Your task to perform on an android device: Go to settings Image 0: 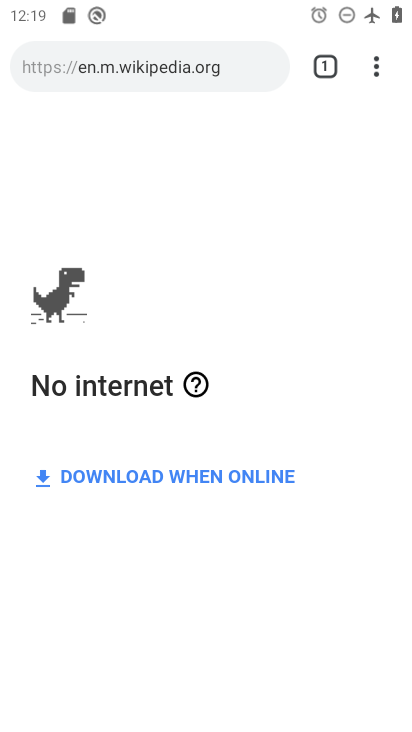
Step 0: press home button
Your task to perform on an android device: Go to settings Image 1: 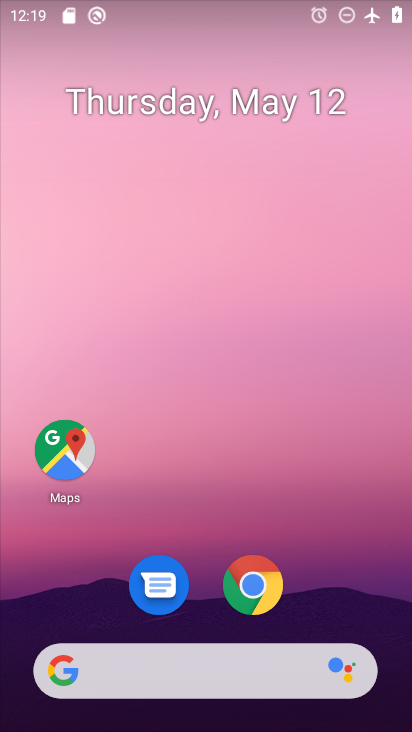
Step 1: drag from (233, 479) to (247, 21)
Your task to perform on an android device: Go to settings Image 2: 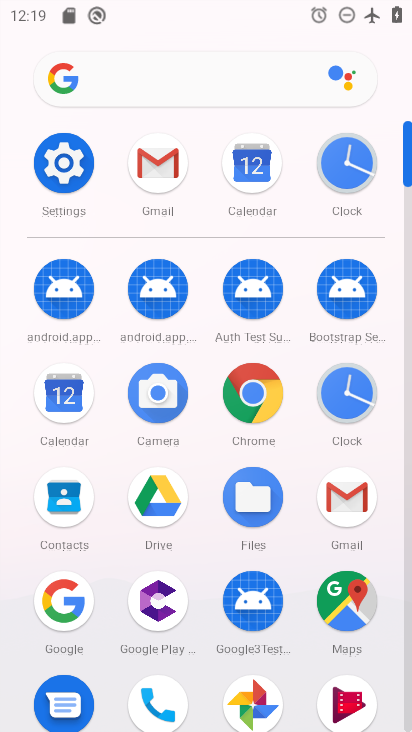
Step 2: click (73, 147)
Your task to perform on an android device: Go to settings Image 3: 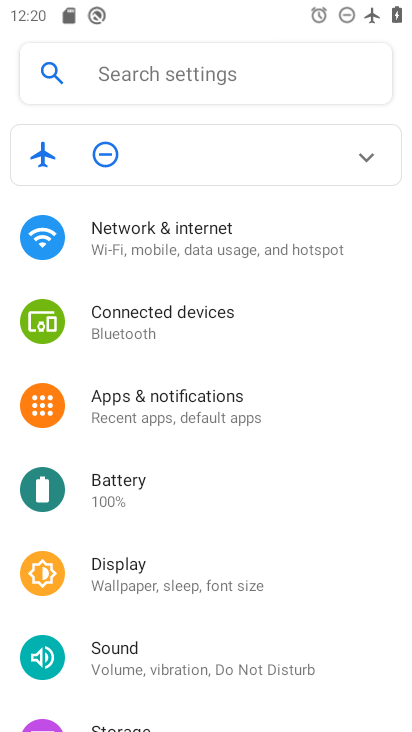
Step 3: task complete